Your task to perform on an android device: snooze an email in the gmail app Image 0: 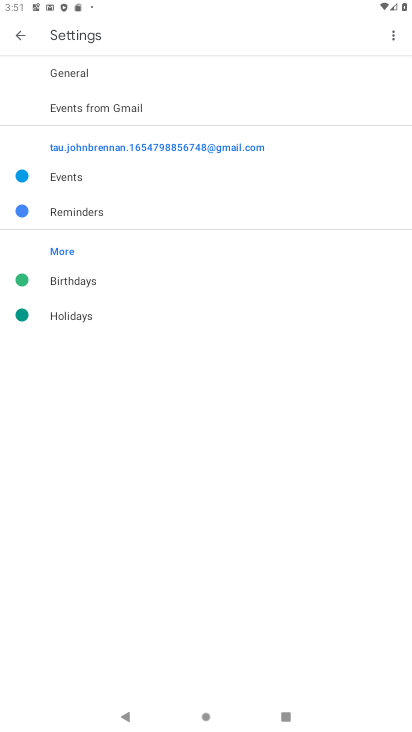
Step 0: press home button
Your task to perform on an android device: snooze an email in the gmail app Image 1: 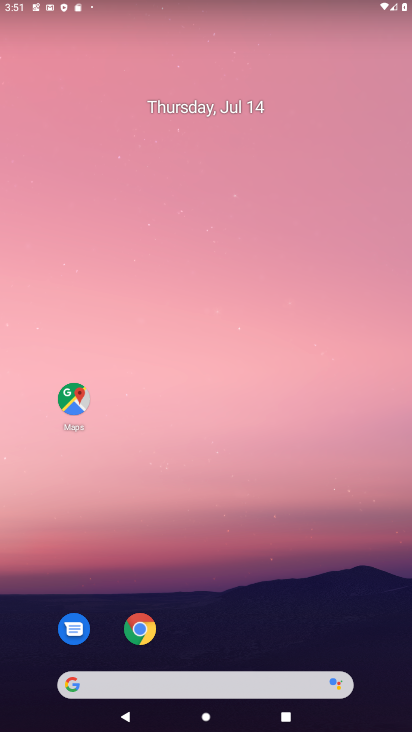
Step 1: drag from (71, 560) to (151, 273)
Your task to perform on an android device: snooze an email in the gmail app Image 2: 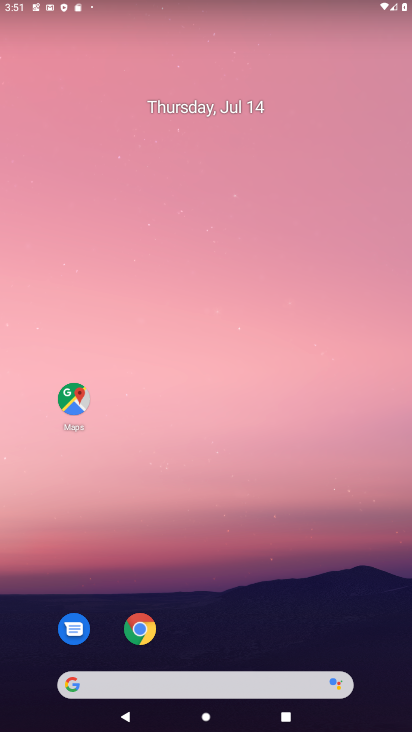
Step 2: drag from (26, 722) to (155, 202)
Your task to perform on an android device: snooze an email in the gmail app Image 3: 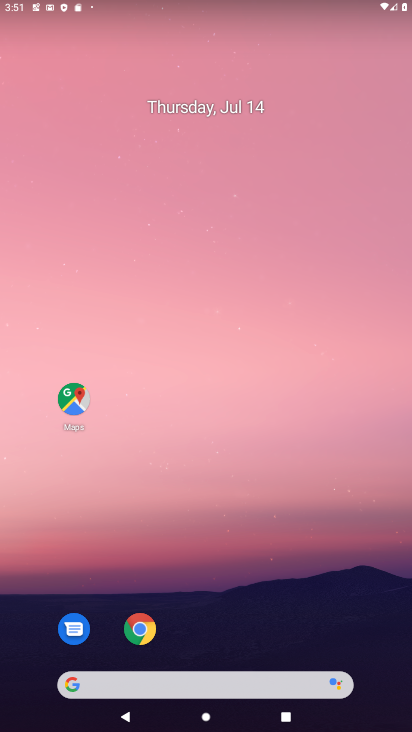
Step 3: drag from (43, 671) to (202, 53)
Your task to perform on an android device: snooze an email in the gmail app Image 4: 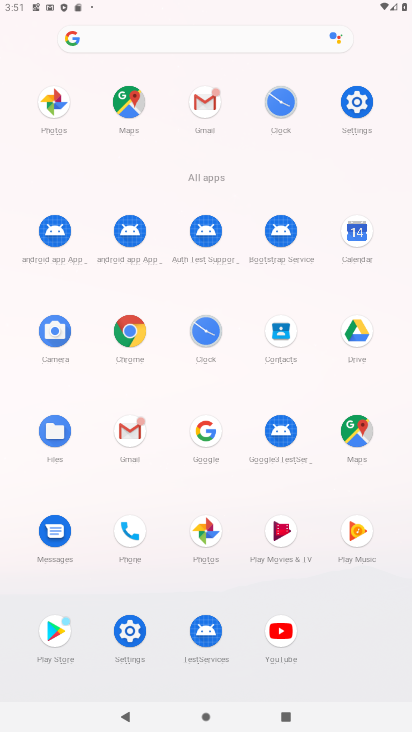
Step 4: click (137, 431)
Your task to perform on an android device: snooze an email in the gmail app Image 5: 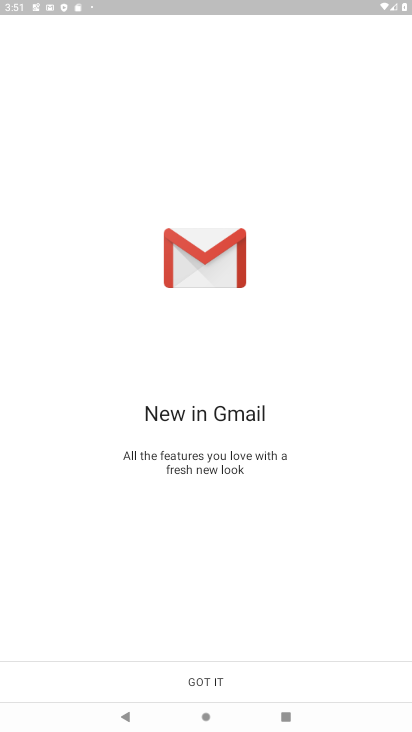
Step 5: click (198, 684)
Your task to perform on an android device: snooze an email in the gmail app Image 6: 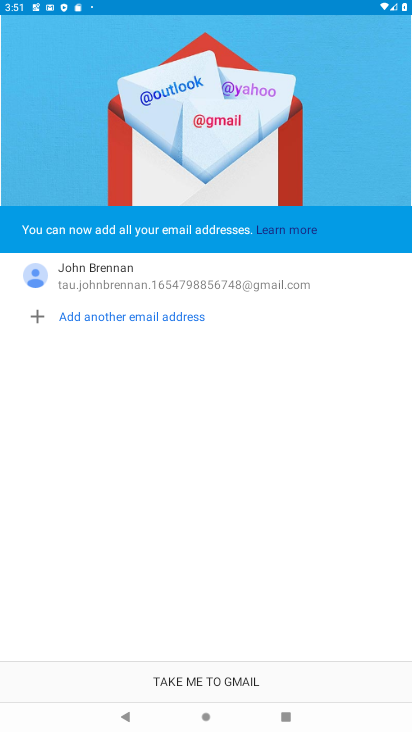
Step 6: click (190, 683)
Your task to perform on an android device: snooze an email in the gmail app Image 7: 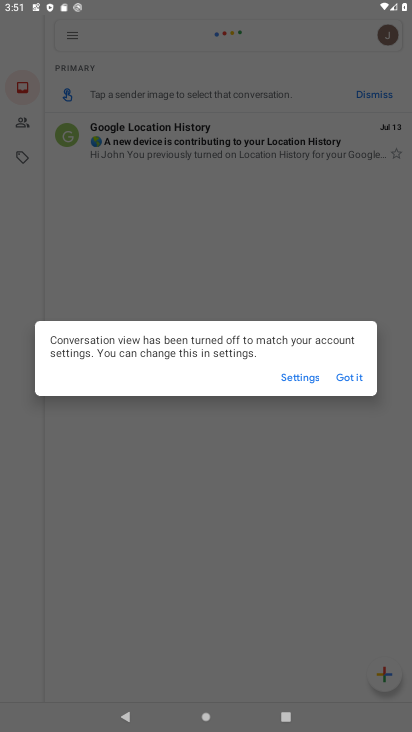
Step 7: click (356, 374)
Your task to perform on an android device: snooze an email in the gmail app Image 8: 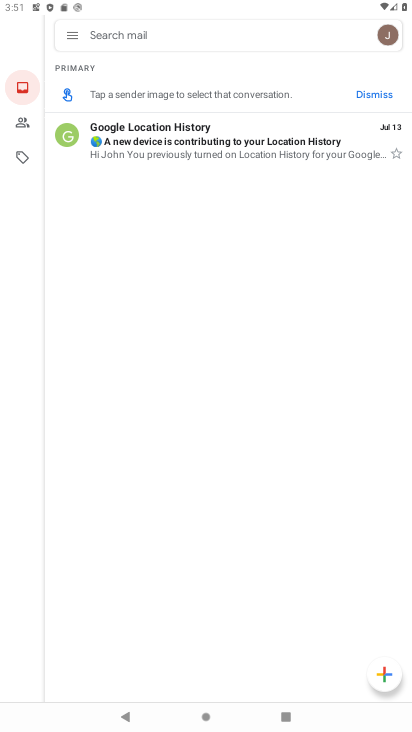
Step 8: click (72, 39)
Your task to perform on an android device: snooze an email in the gmail app Image 9: 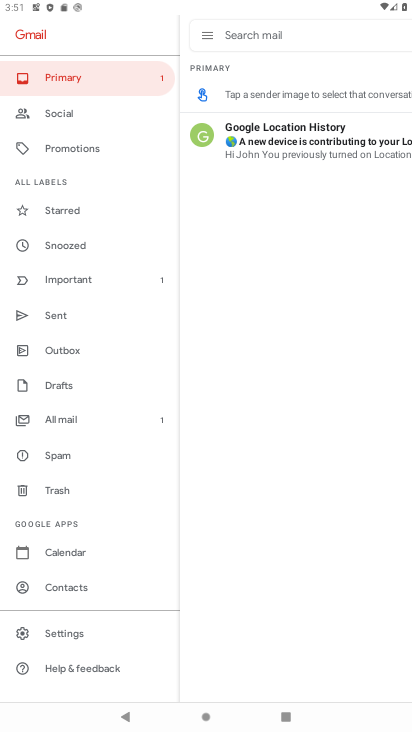
Step 9: click (69, 238)
Your task to perform on an android device: snooze an email in the gmail app Image 10: 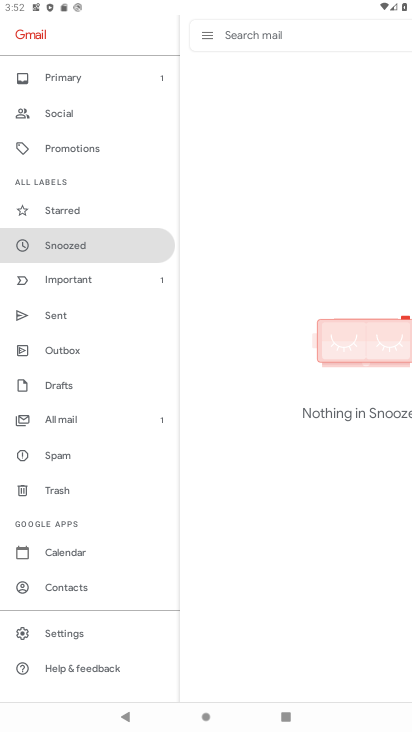
Step 10: task complete